Your task to perform on an android device: Is it going to rain this weekend? Image 0: 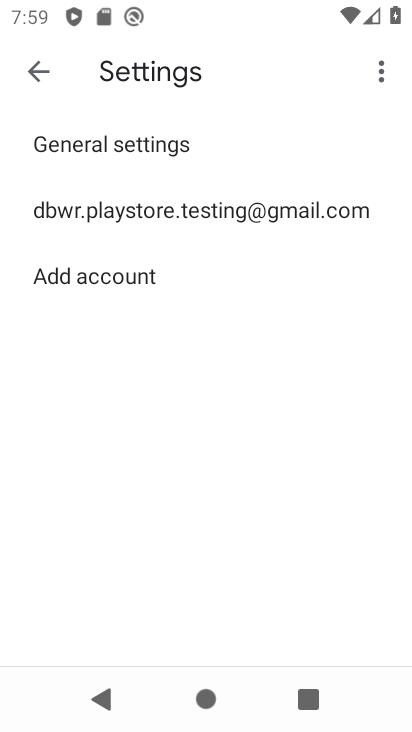
Step 0: press home button
Your task to perform on an android device: Is it going to rain this weekend? Image 1: 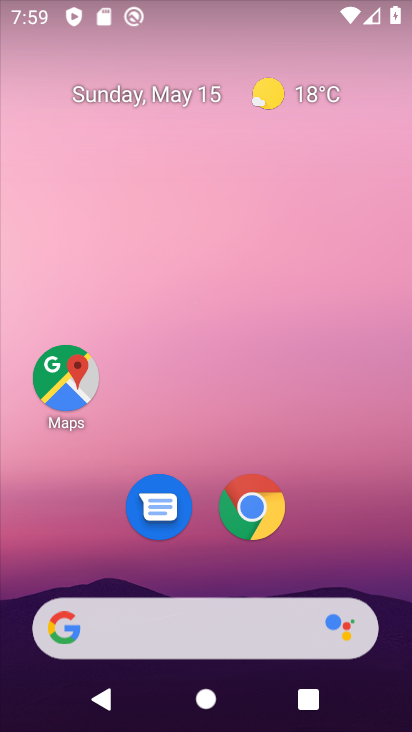
Step 1: drag from (127, 408) to (256, 157)
Your task to perform on an android device: Is it going to rain this weekend? Image 2: 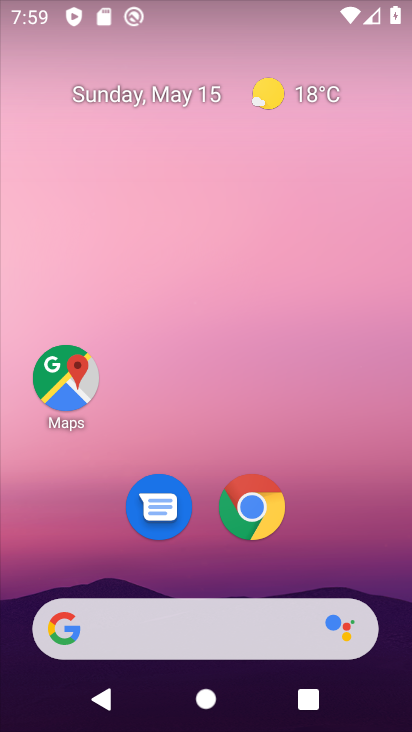
Step 2: drag from (5, 681) to (304, 107)
Your task to perform on an android device: Is it going to rain this weekend? Image 3: 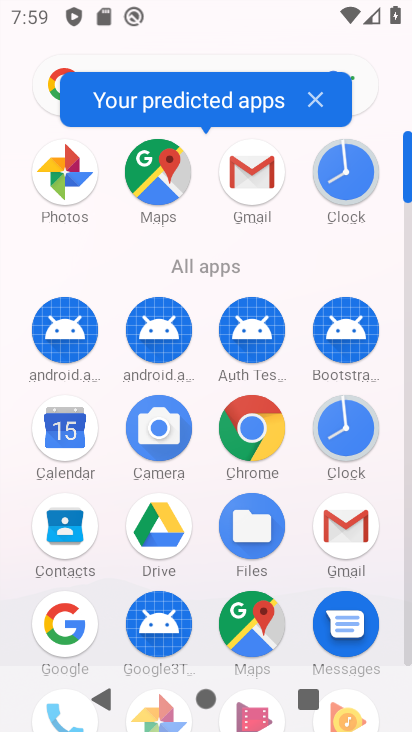
Step 3: click (79, 435)
Your task to perform on an android device: Is it going to rain this weekend? Image 4: 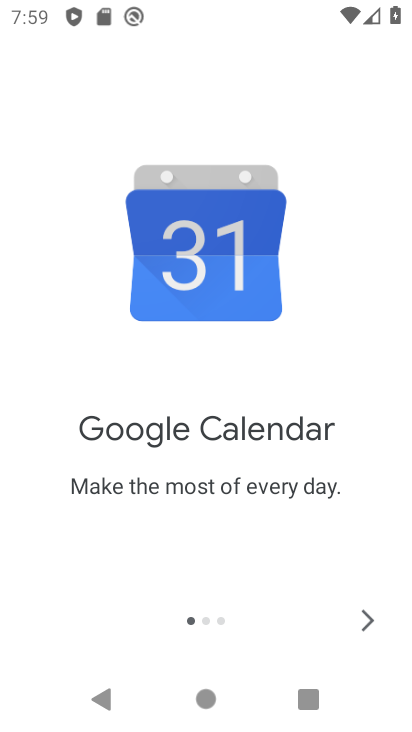
Step 4: click (366, 614)
Your task to perform on an android device: Is it going to rain this weekend? Image 5: 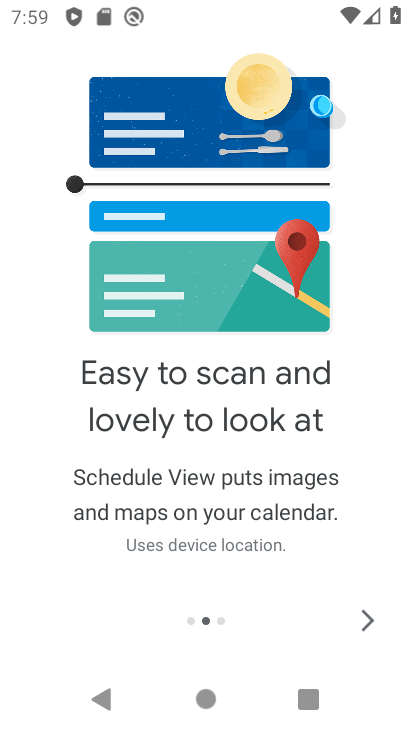
Step 5: click (366, 614)
Your task to perform on an android device: Is it going to rain this weekend? Image 6: 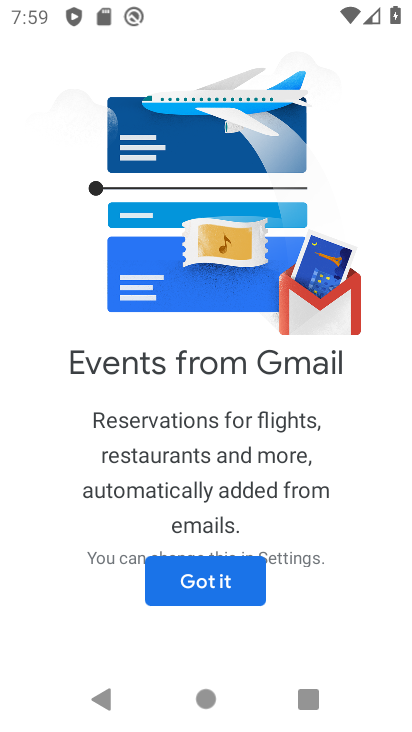
Step 6: click (220, 594)
Your task to perform on an android device: Is it going to rain this weekend? Image 7: 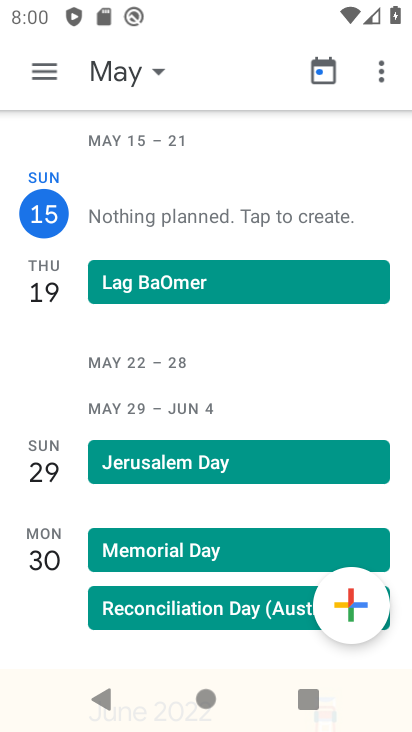
Step 7: click (127, 67)
Your task to perform on an android device: Is it going to rain this weekend? Image 8: 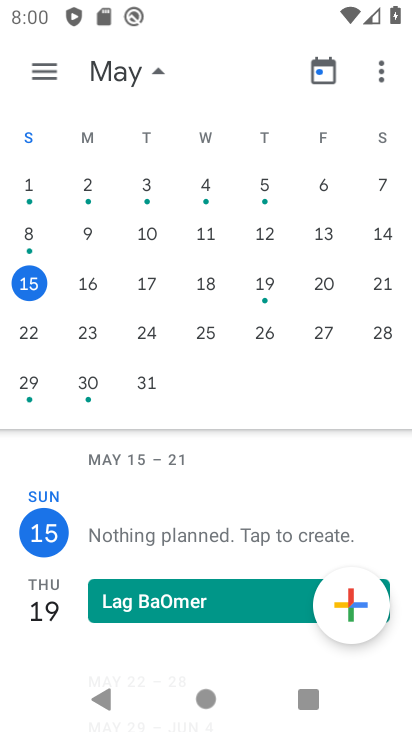
Step 8: click (372, 281)
Your task to perform on an android device: Is it going to rain this weekend? Image 9: 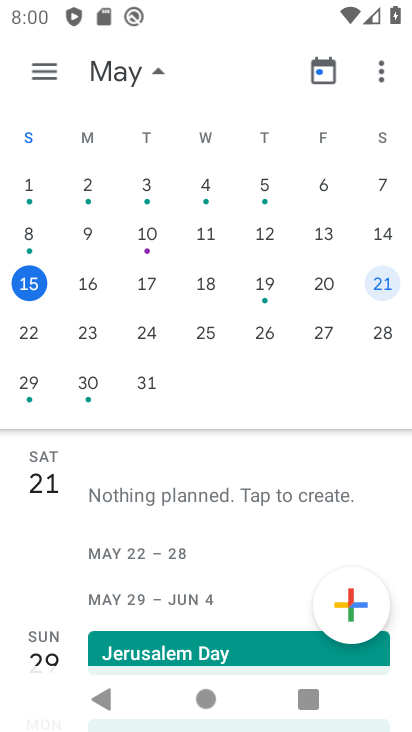
Step 9: click (32, 329)
Your task to perform on an android device: Is it going to rain this weekend? Image 10: 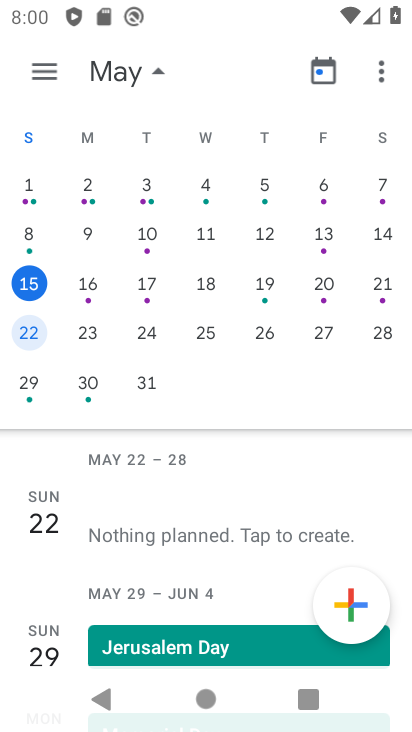
Step 10: task complete